Your task to perform on an android device: turn on priority inbox in the gmail app Image 0: 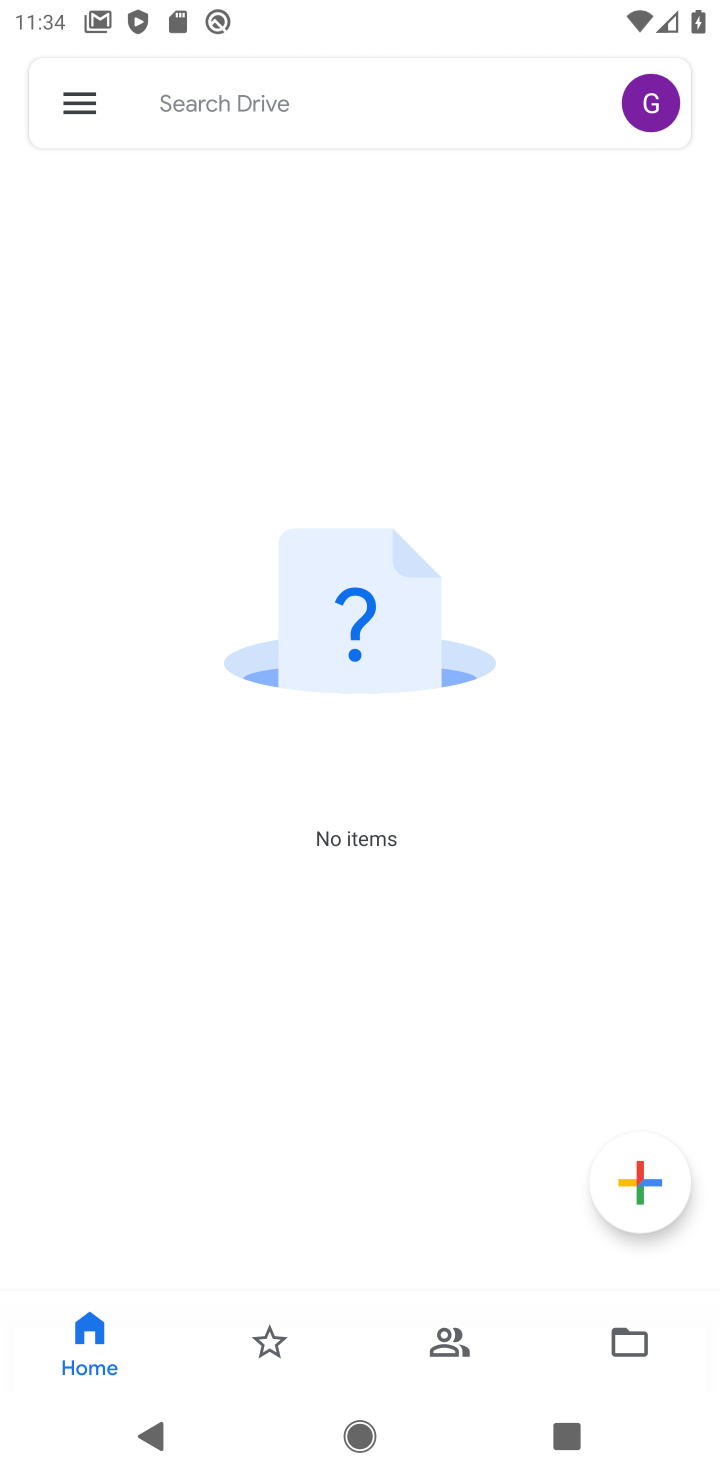
Step 0: press home button
Your task to perform on an android device: turn on priority inbox in the gmail app Image 1: 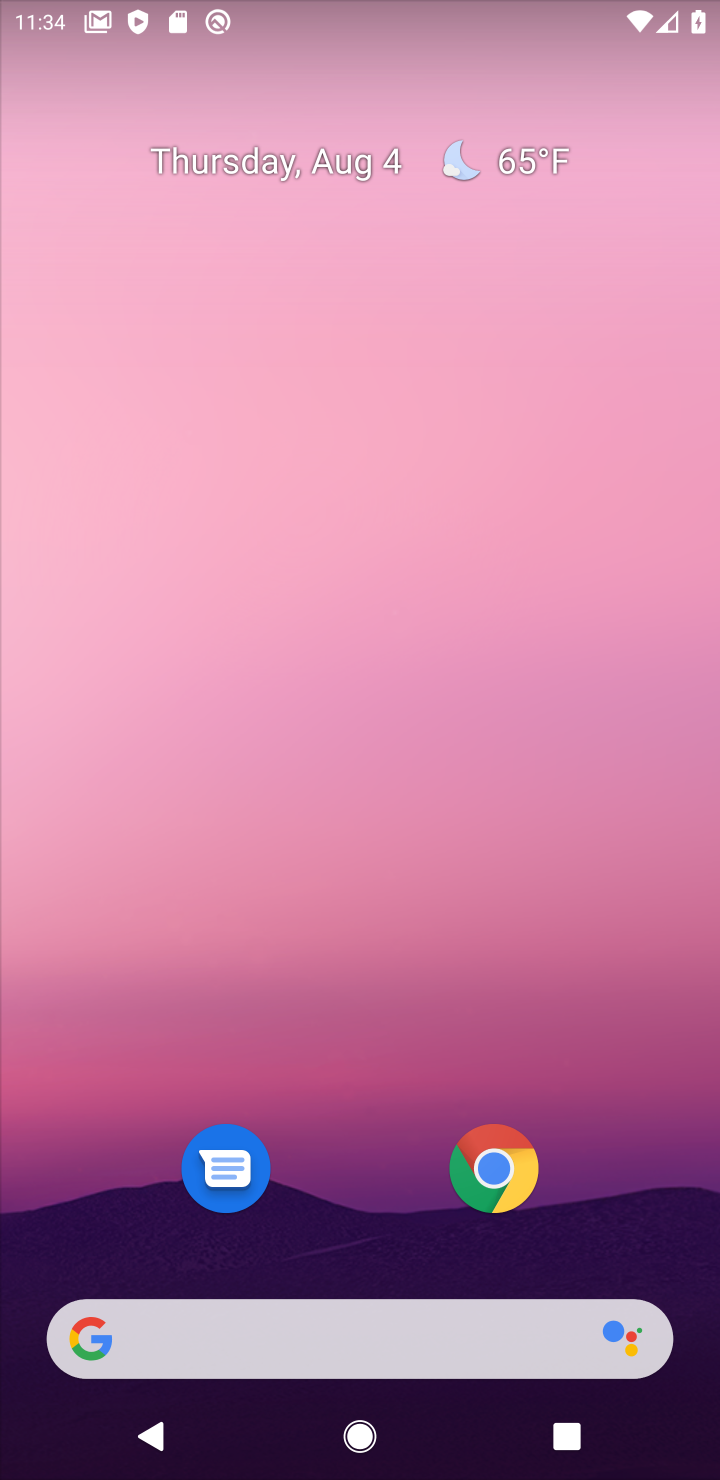
Step 1: drag from (352, 1210) to (470, 8)
Your task to perform on an android device: turn on priority inbox in the gmail app Image 2: 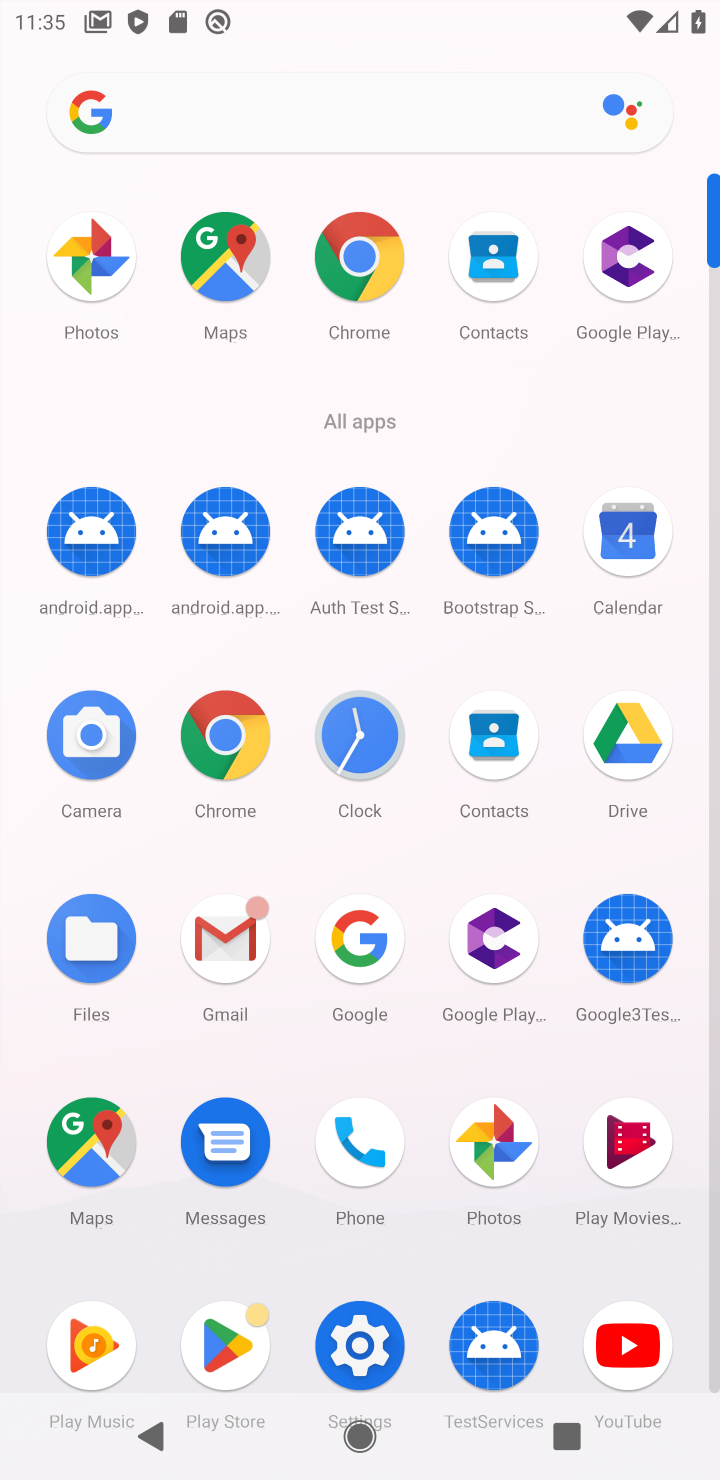
Step 2: click (228, 950)
Your task to perform on an android device: turn on priority inbox in the gmail app Image 3: 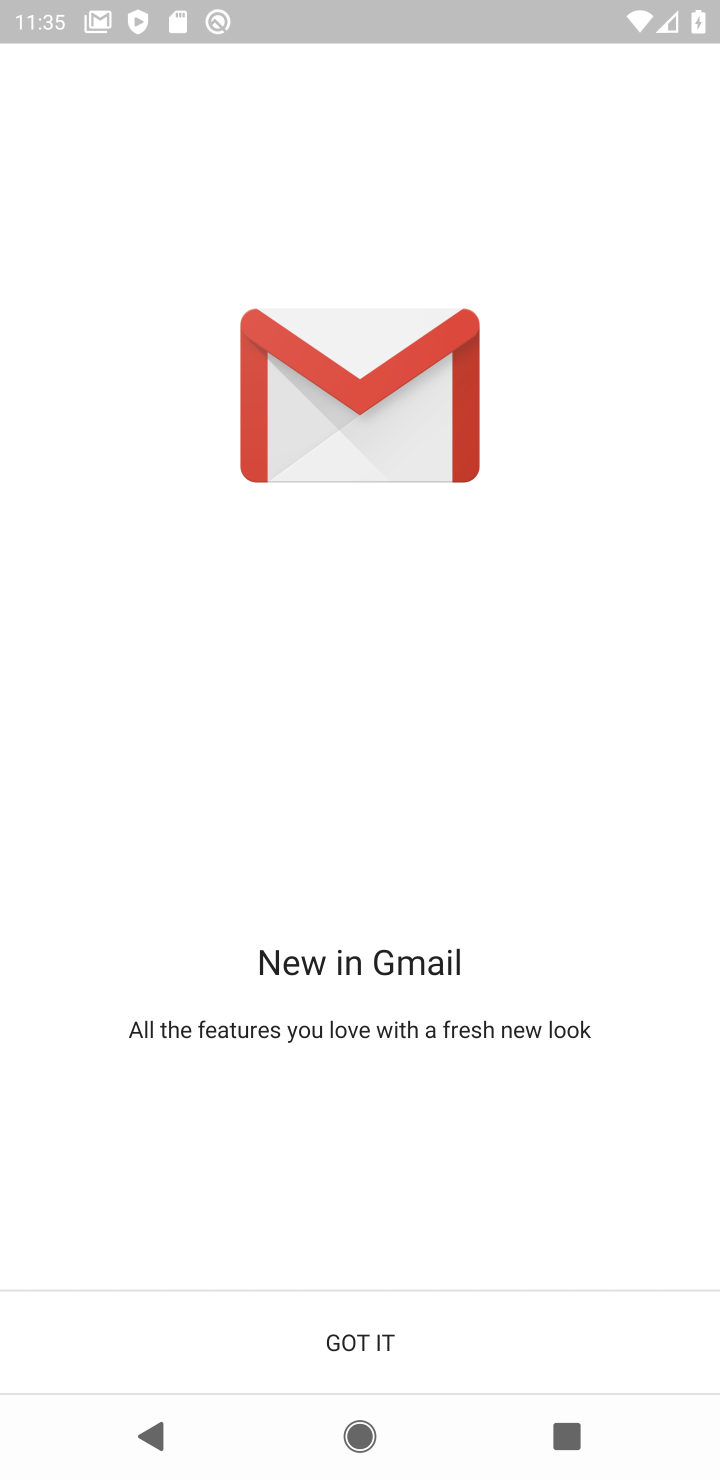
Step 3: click (393, 1331)
Your task to perform on an android device: turn on priority inbox in the gmail app Image 4: 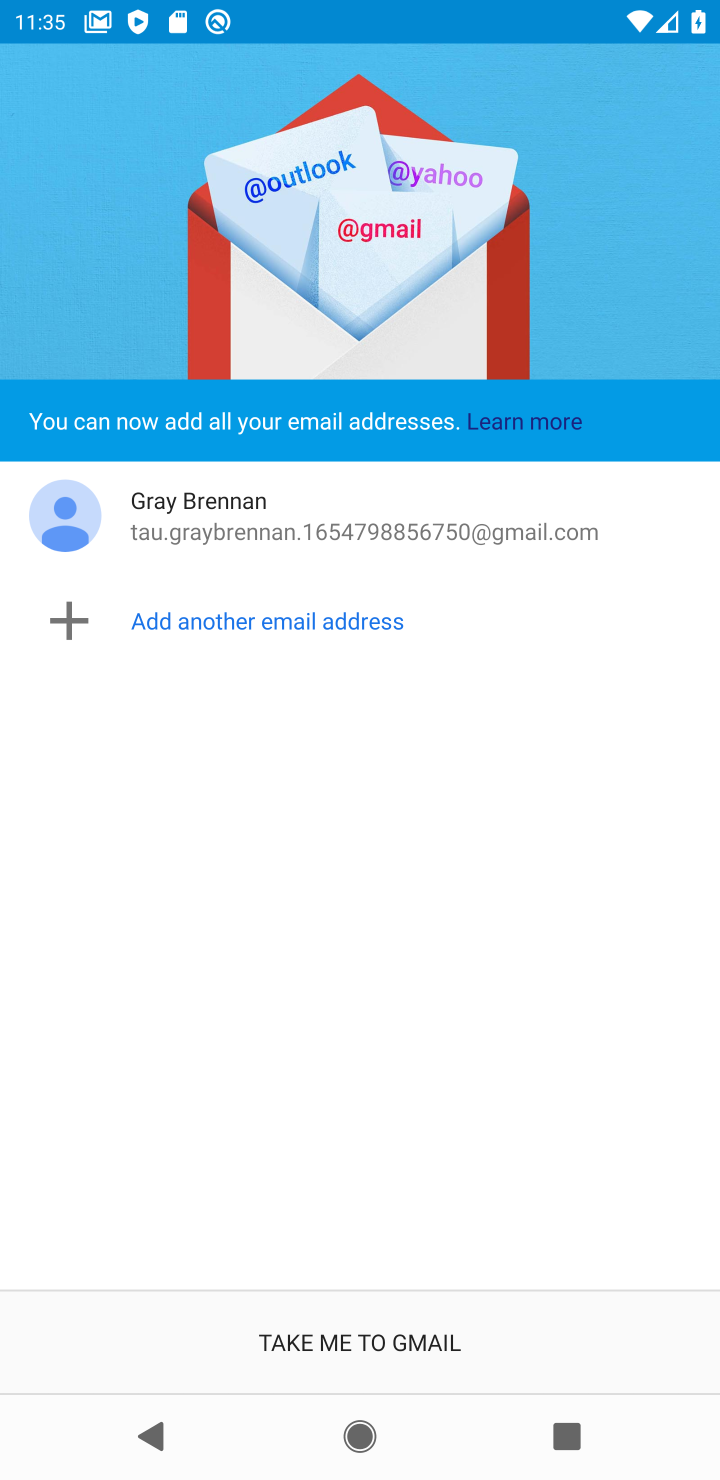
Step 4: click (393, 1331)
Your task to perform on an android device: turn on priority inbox in the gmail app Image 5: 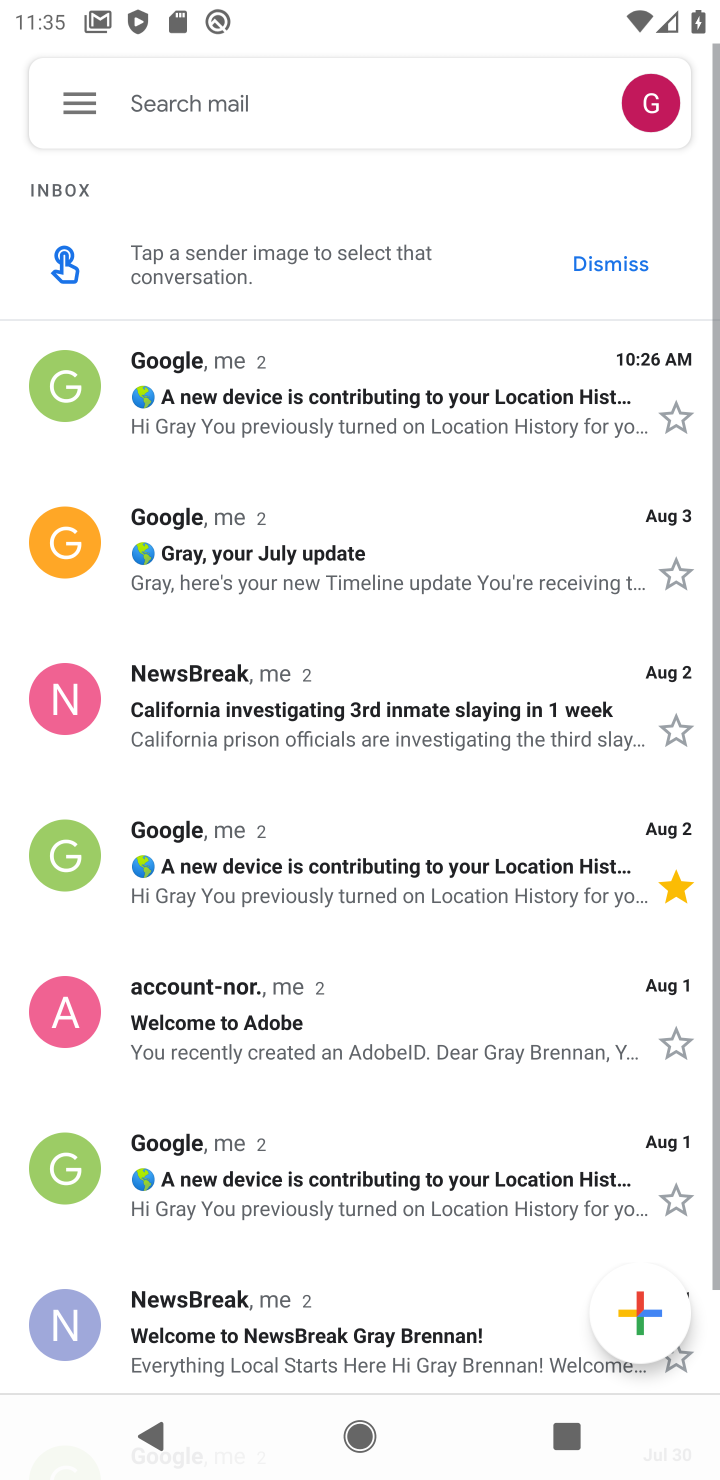
Step 5: click (76, 107)
Your task to perform on an android device: turn on priority inbox in the gmail app Image 6: 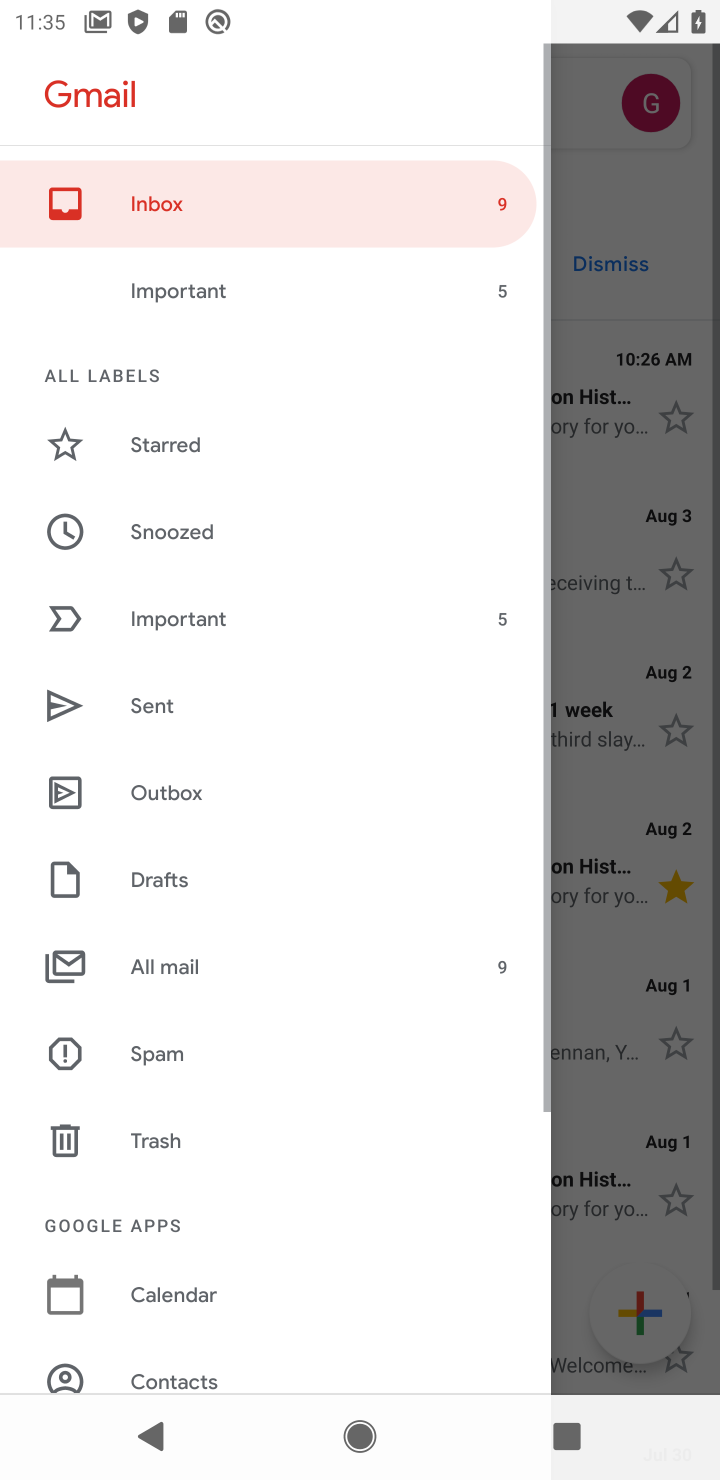
Step 6: drag from (201, 1159) to (223, 471)
Your task to perform on an android device: turn on priority inbox in the gmail app Image 7: 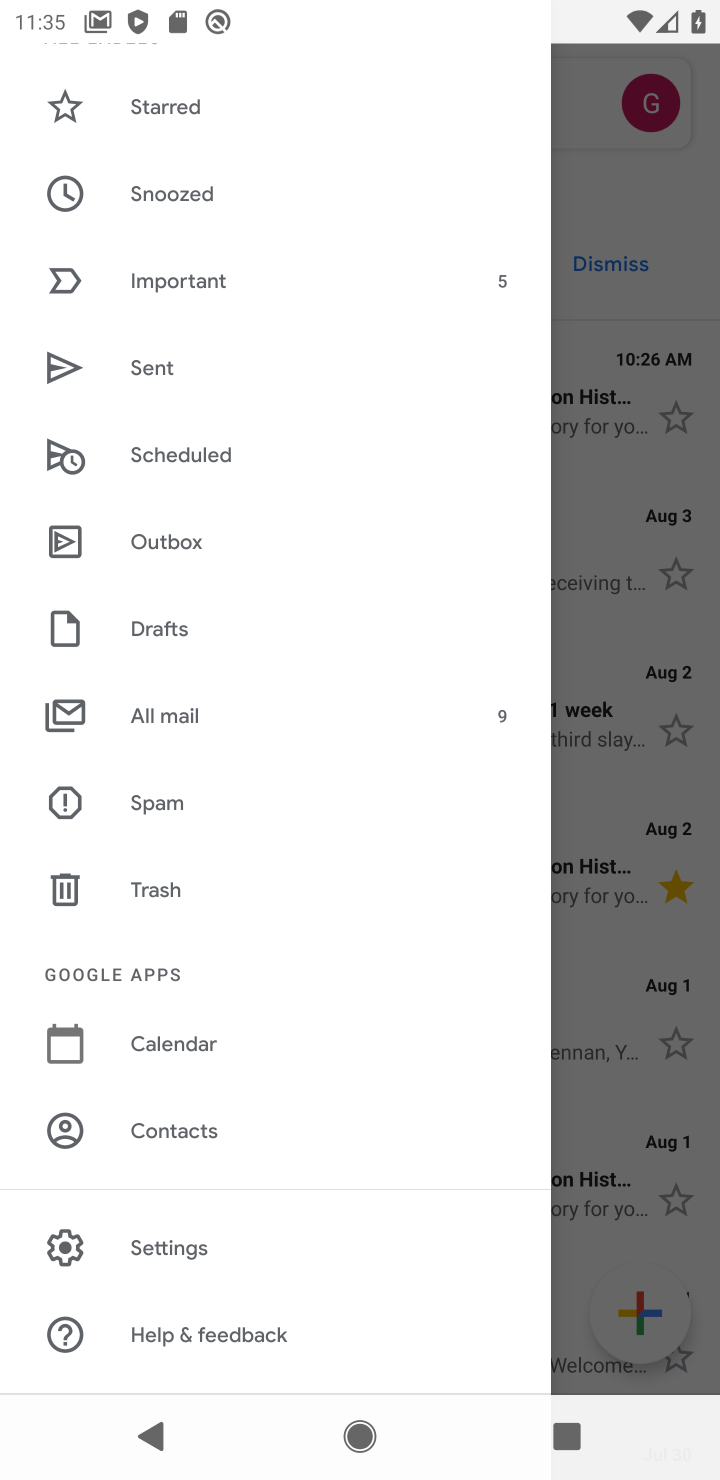
Step 7: click (160, 1253)
Your task to perform on an android device: turn on priority inbox in the gmail app Image 8: 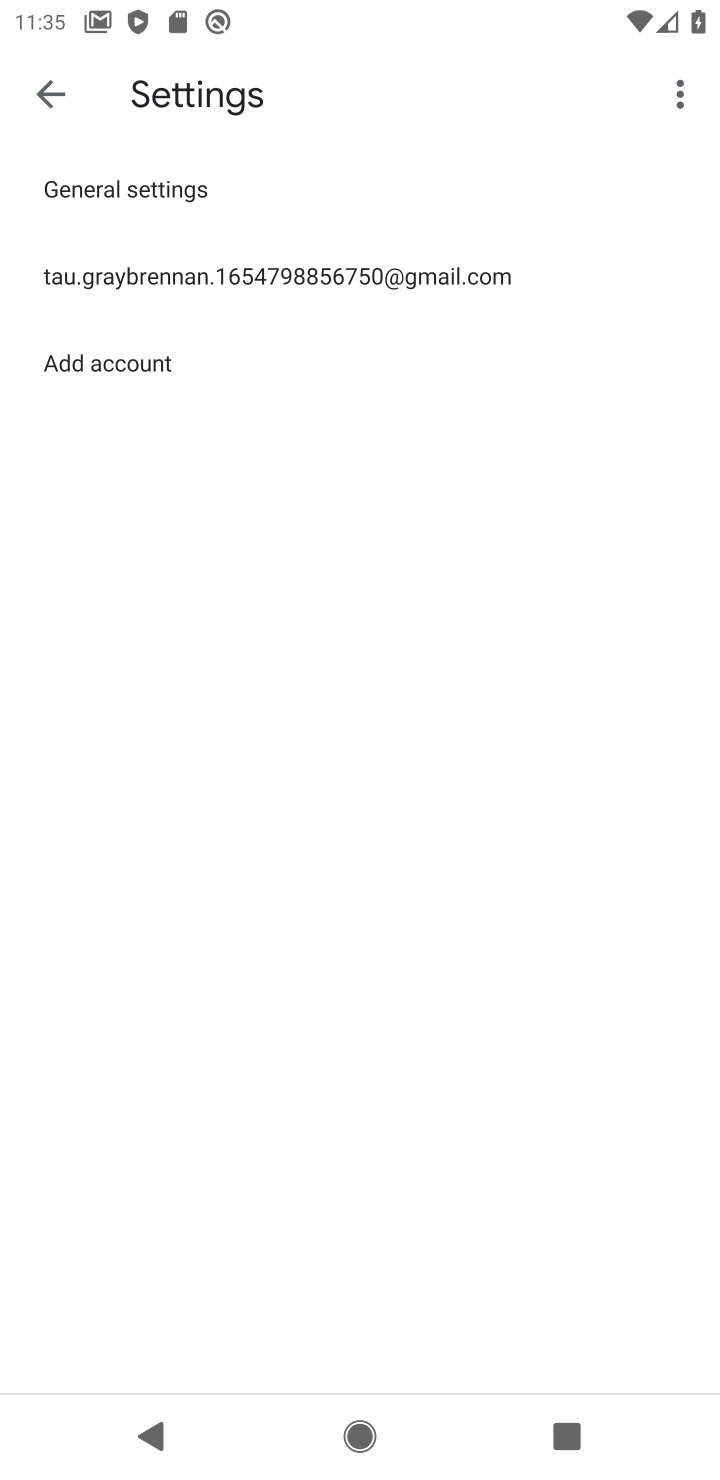
Step 8: click (238, 284)
Your task to perform on an android device: turn on priority inbox in the gmail app Image 9: 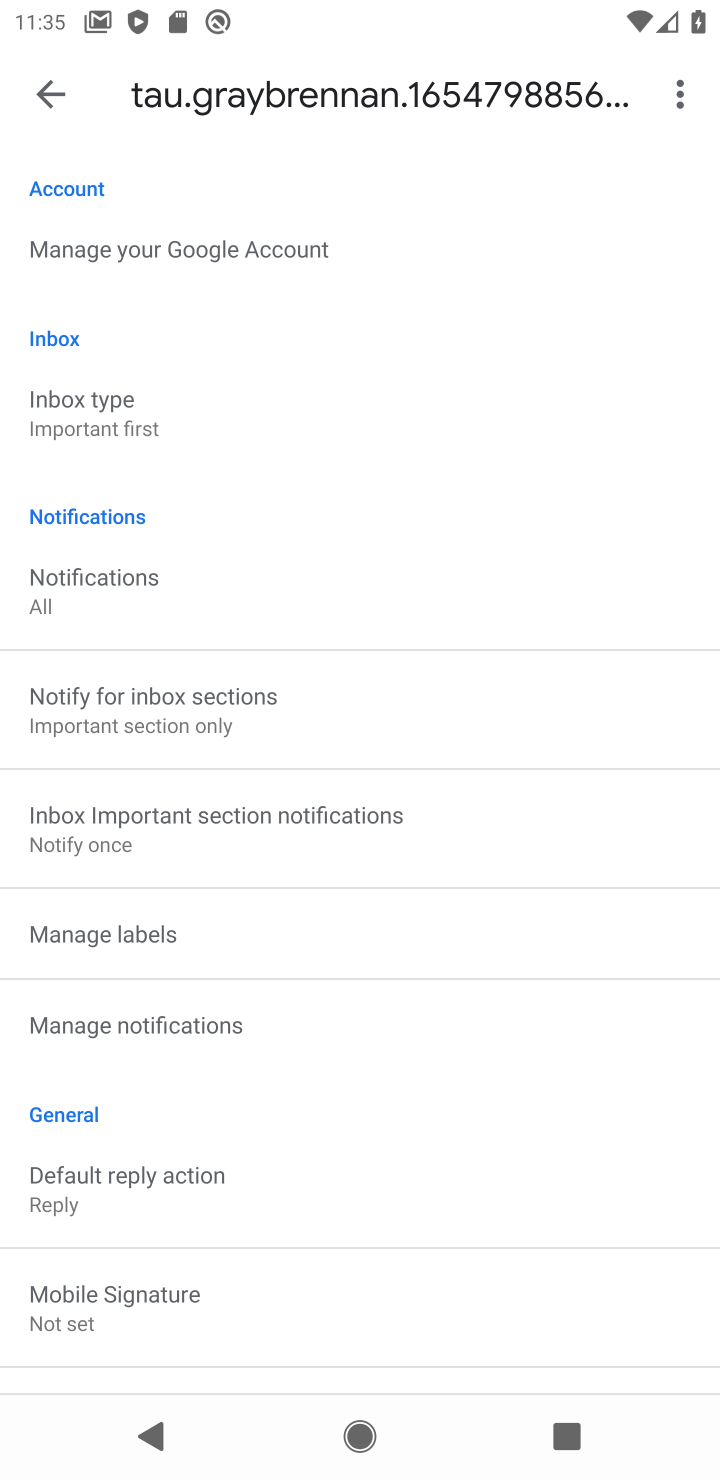
Step 9: click (126, 416)
Your task to perform on an android device: turn on priority inbox in the gmail app Image 10: 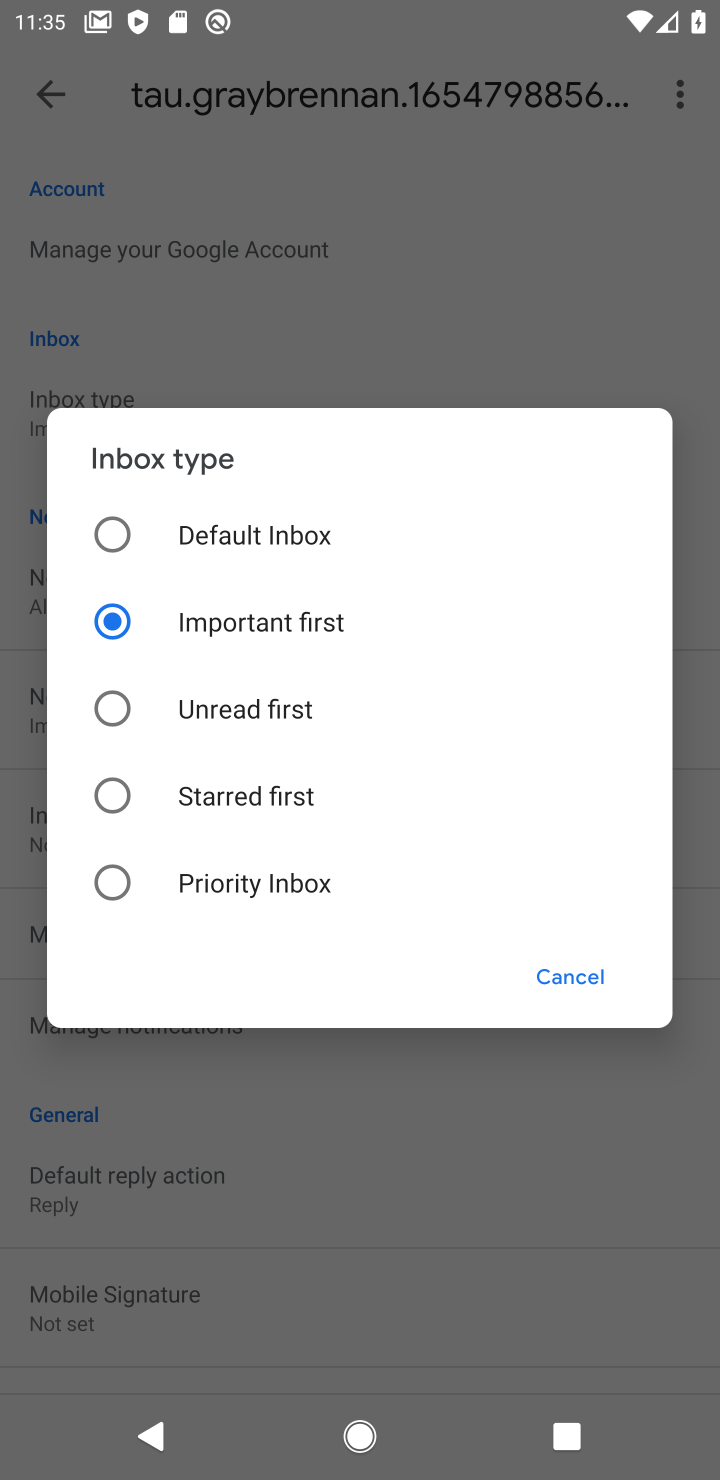
Step 10: click (162, 869)
Your task to perform on an android device: turn on priority inbox in the gmail app Image 11: 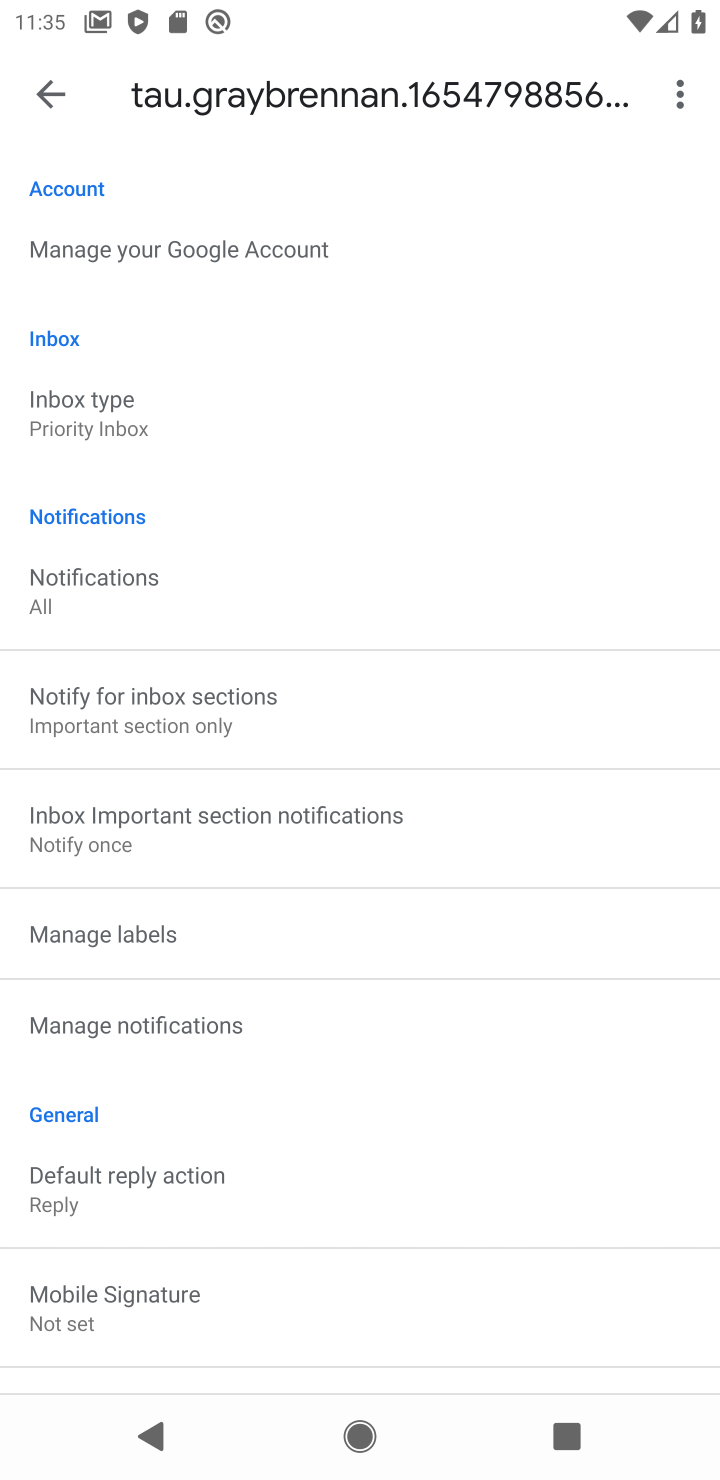
Step 11: task complete